Your task to perform on an android device: turn off location Image 0: 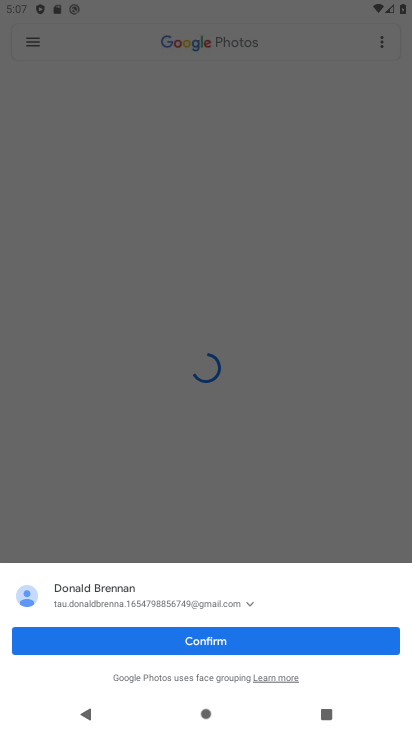
Step 0: press home button
Your task to perform on an android device: turn off location Image 1: 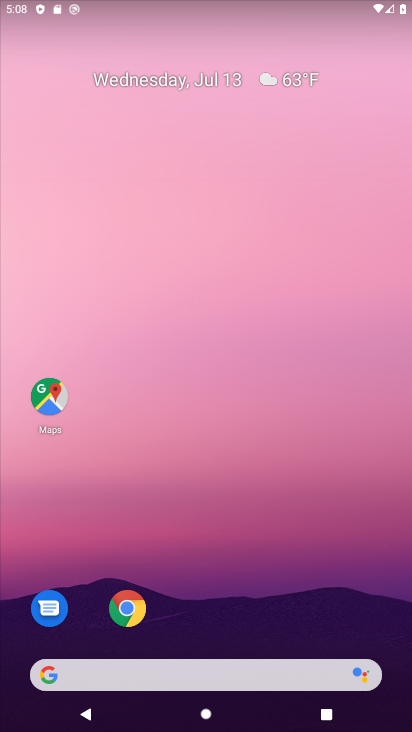
Step 1: drag from (249, 573) to (208, 114)
Your task to perform on an android device: turn off location Image 2: 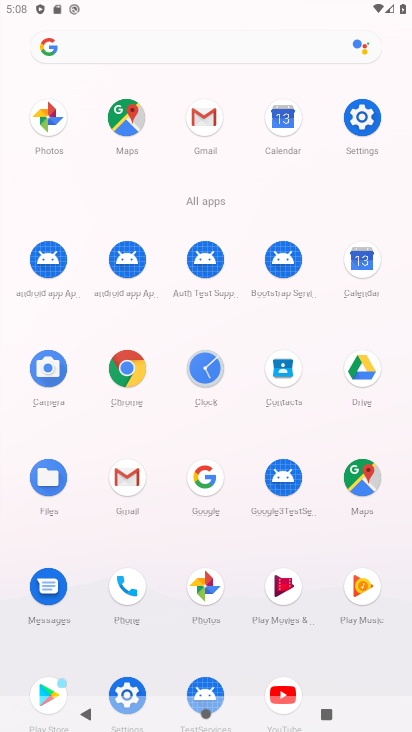
Step 2: click (358, 113)
Your task to perform on an android device: turn off location Image 3: 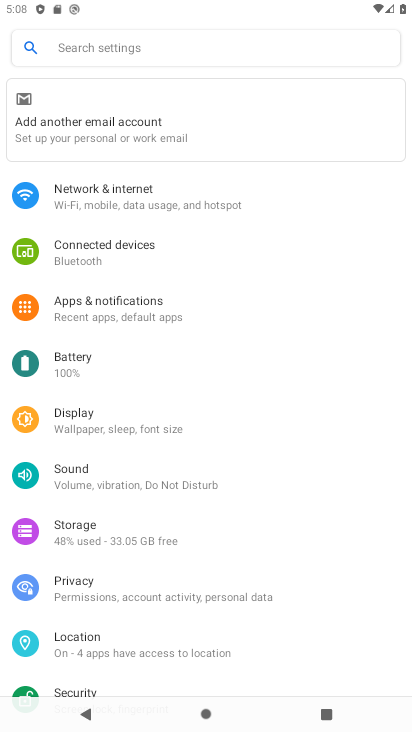
Step 3: click (114, 646)
Your task to perform on an android device: turn off location Image 4: 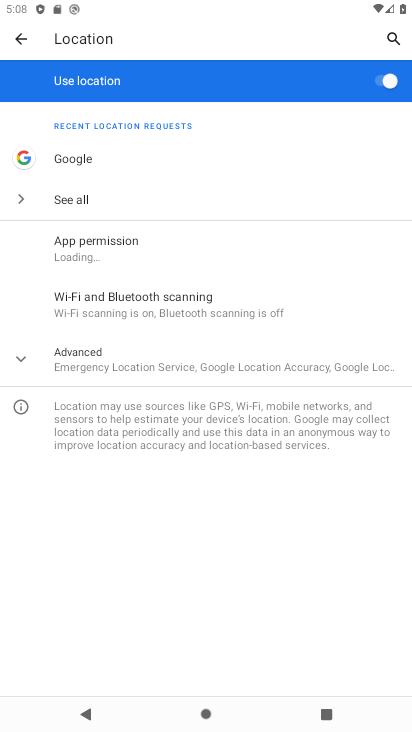
Step 4: click (377, 82)
Your task to perform on an android device: turn off location Image 5: 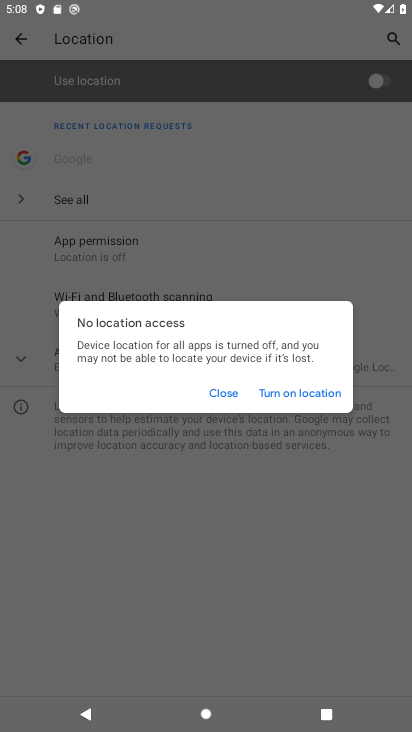
Step 5: task complete